Your task to perform on an android device: set an alarm Image 0: 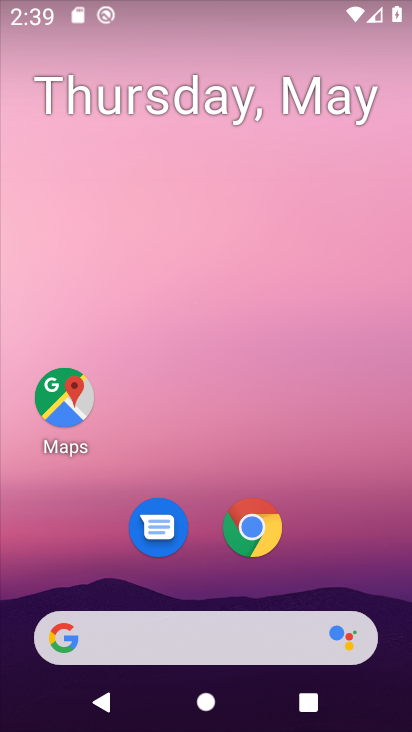
Step 0: drag from (381, 609) to (391, 177)
Your task to perform on an android device: set an alarm Image 1: 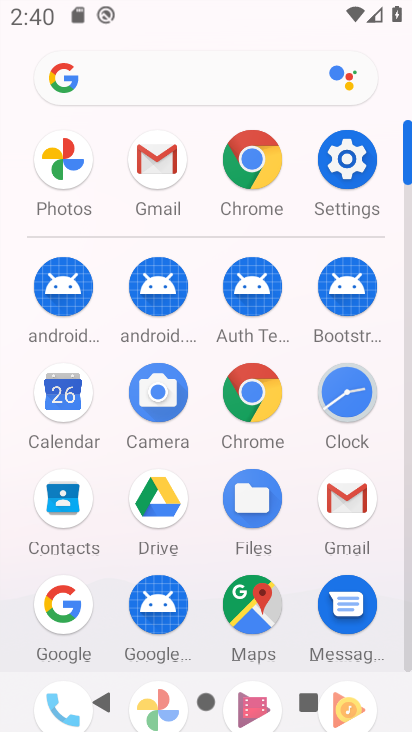
Step 1: click (365, 370)
Your task to perform on an android device: set an alarm Image 2: 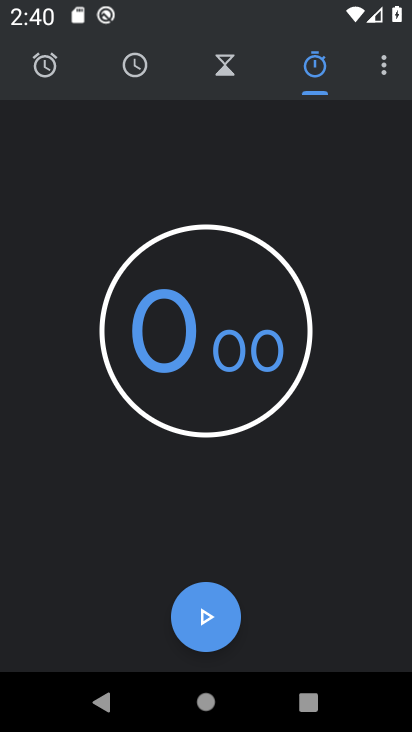
Step 2: click (46, 56)
Your task to perform on an android device: set an alarm Image 3: 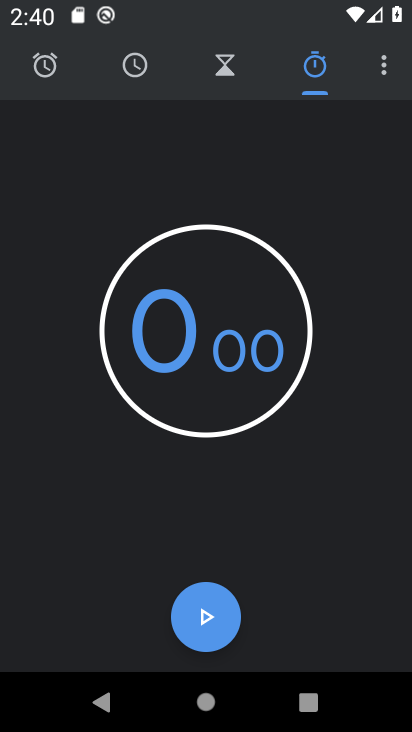
Step 3: click (46, 64)
Your task to perform on an android device: set an alarm Image 4: 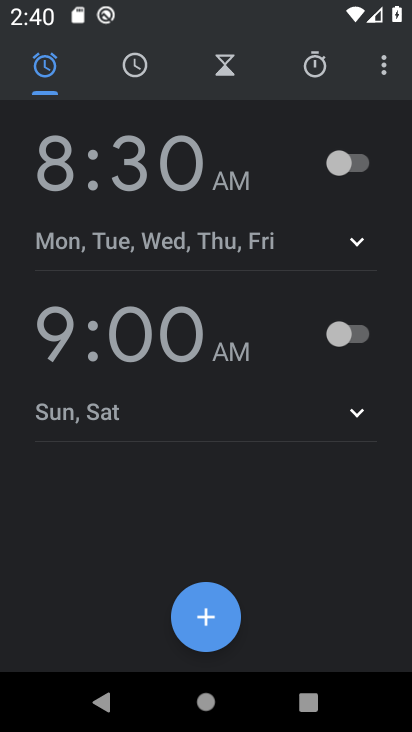
Step 4: click (216, 616)
Your task to perform on an android device: set an alarm Image 5: 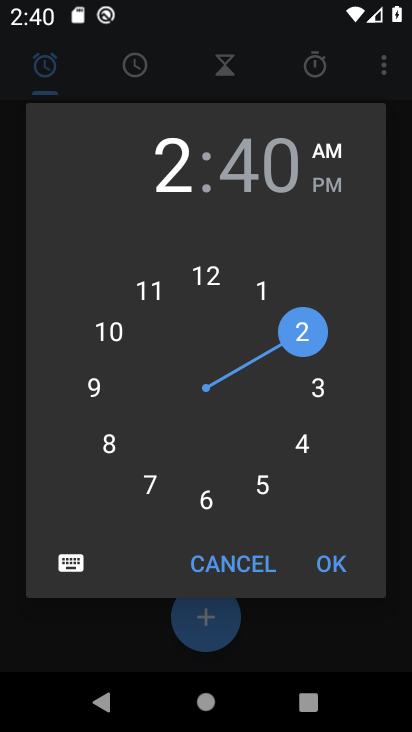
Step 5: click (336, 569)
Your task to perform on an android device: set an alarm Image 6: 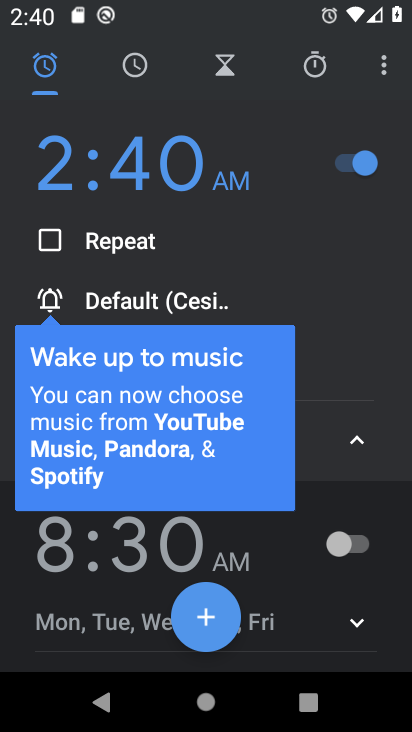
Step 6: task complete